Your task to perform on an android device: set default search engine in the chrome app Image 0: 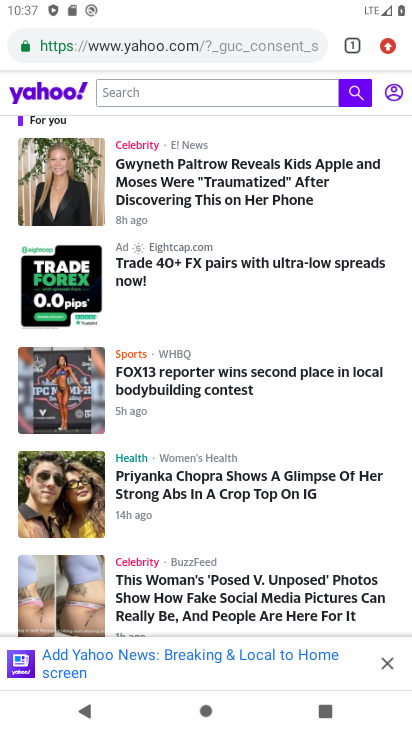
Step 0: press home button
Your task to perform on an android device: set default search engine in the chrome app Image 1: 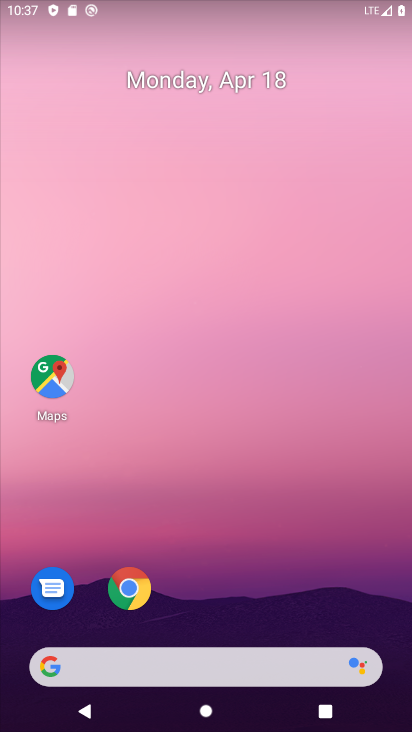
Step 1: click (128, 586)
Your task to perform on an android device: set default search engine in the chrome app Image 2: 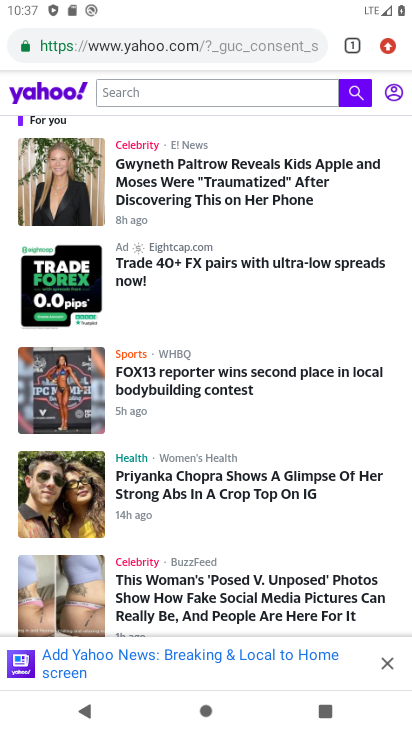
Step 2: click (388, 43)
Your task to perform on an android device: set default search engine in the chrome app Image 3: 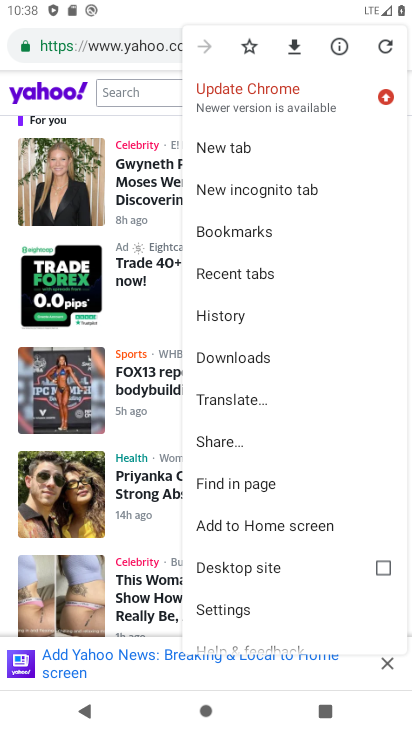
Step 3: click (219, 602)
Your task to perform on an android device: set default search engine in the chrome app Image 4: 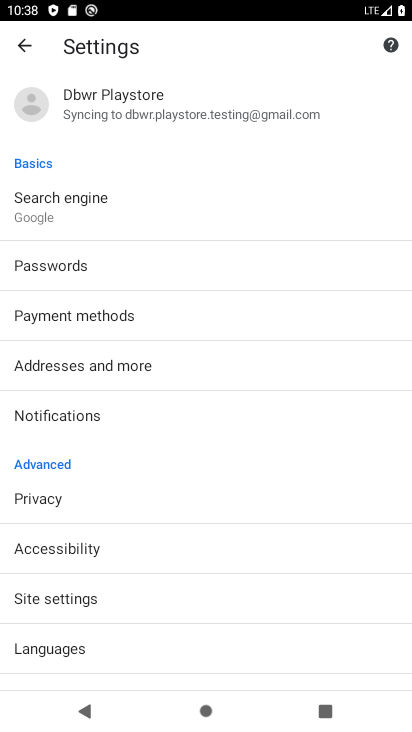
Step 4: click (48, 201)
Your task to perform on an android device: set default search engine in the chrome app Image 5: 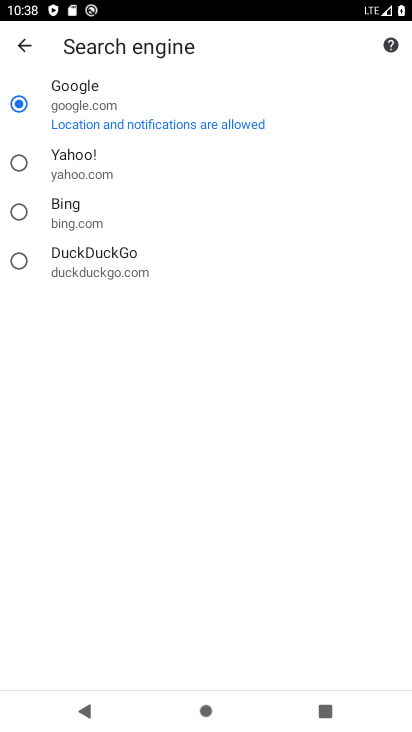
Step 5: click (17, 161)
Your task to perform on an android device: set default search engine in the chrome app Image 6: 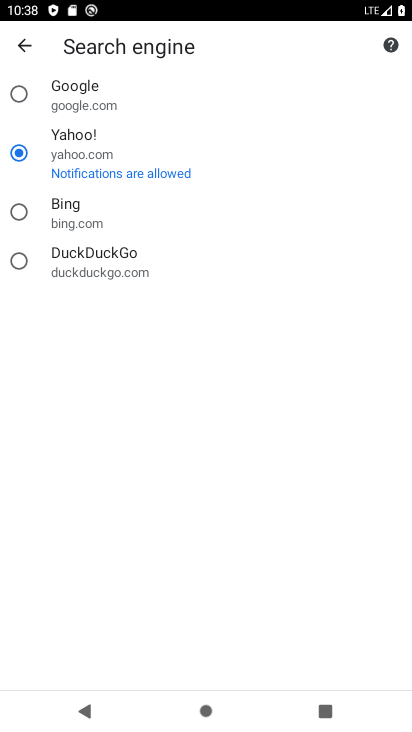
Step 6: task complete